Your task to perform on an android device: When is my next meeting? Image 0: 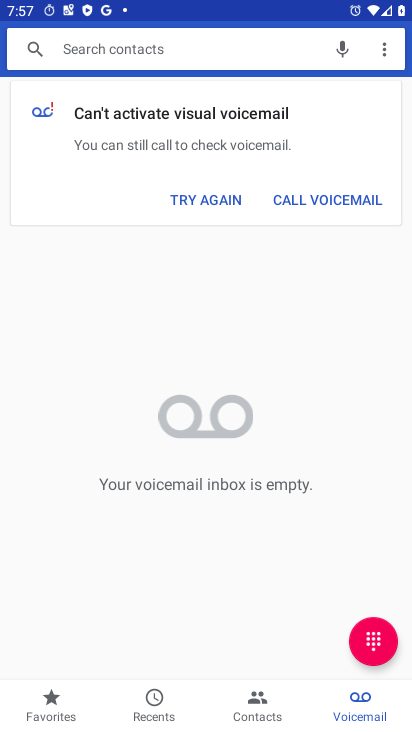
Step 0: press home button
Your task to perform on an android device: When is my next meeting? Image 1: 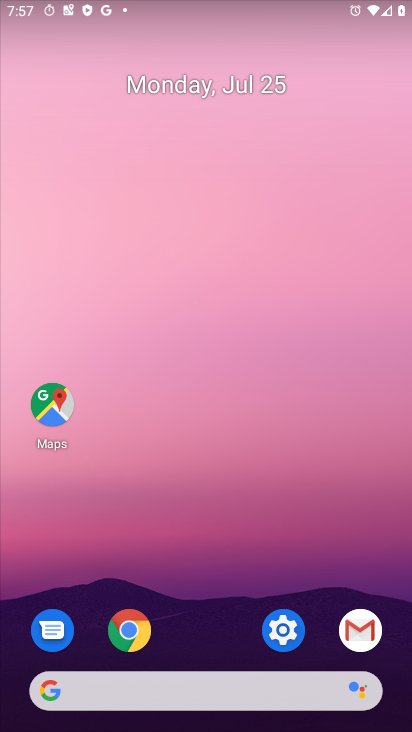
Step 1: drag from (255, 706) to (190, 100)
Your task to perform on an android device: When is my next meeting? Image 2: 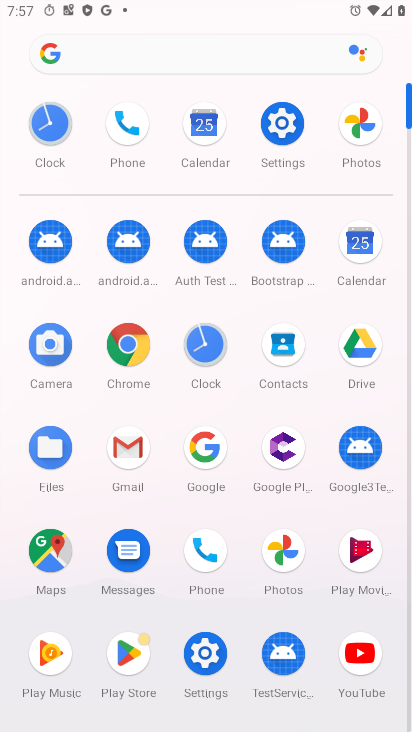
Step 2: click (345, 248)
Your task to perform on an android device: When is my next meeting? Image 3: 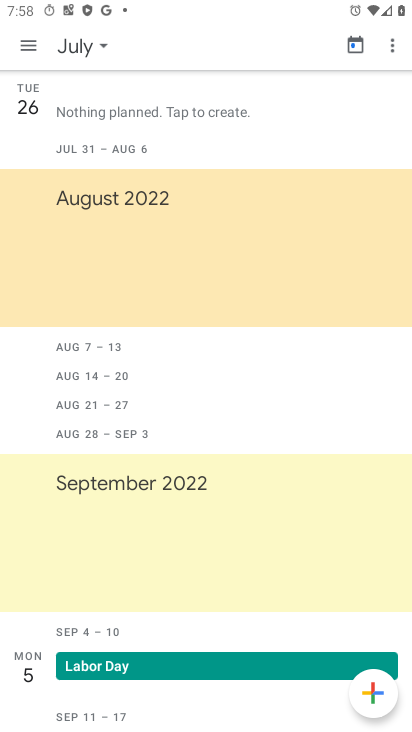
Step 3: click (33, 45)
Your task to perform on an android device: When is my next meeting? Image 4: 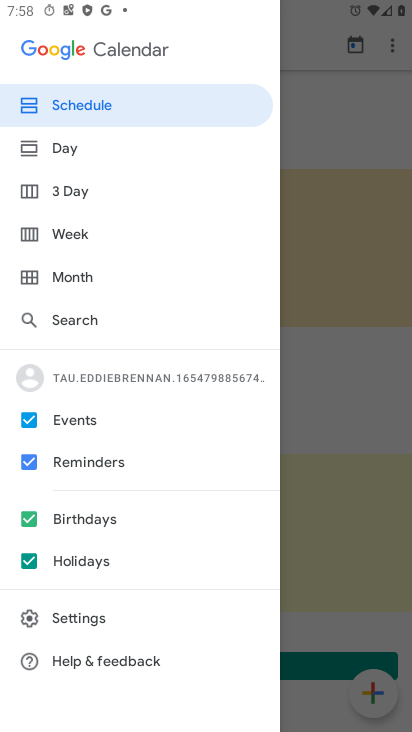
Step 4: click (108, 270)
Your task to perform on an android device: When is my next meeting? Image 5: 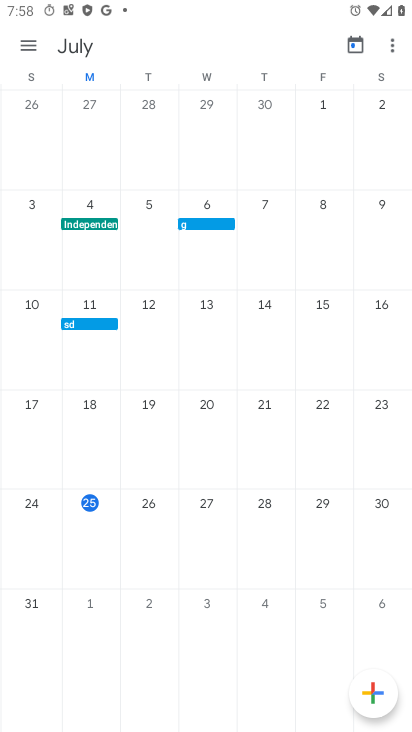
Step 5: click (96, 508)
Your task to perform on an android device: When is my next meeting? Image 6: 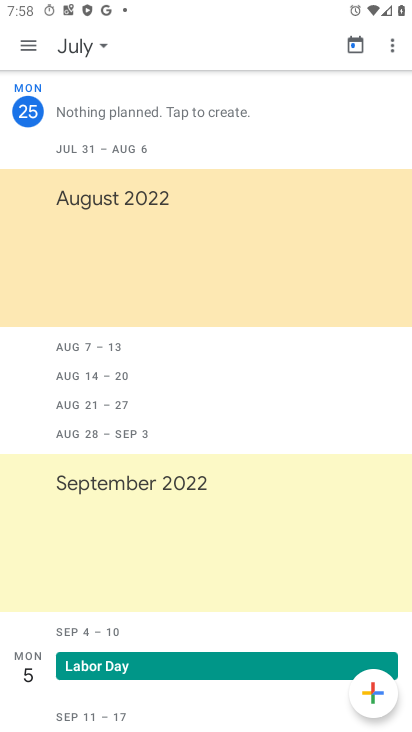
Step 6: task complete